Your task to perform on an android device: turn pop-ups on in chrome Image 0: 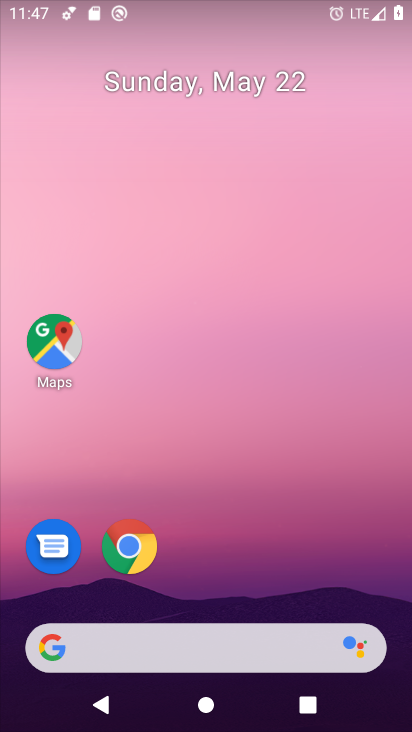
Step 0: drag from (235, 628) to (231, 271)
Your task to perform on an android device: turn pop-ups on in chrome Image 1: 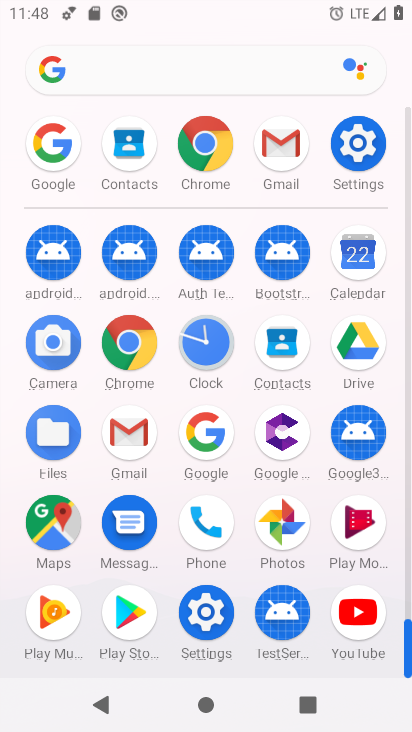
Step 1: click (210, 167)
Your task to perform on an android device: turn pop-ups on in chrome Image 2: 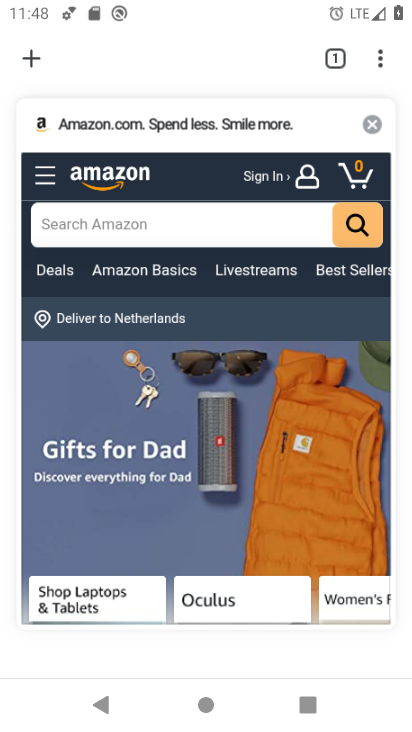
Step 2: click (285, 285)
Your task to perform on an android device: turn pop-ups on in chrome Image 3: 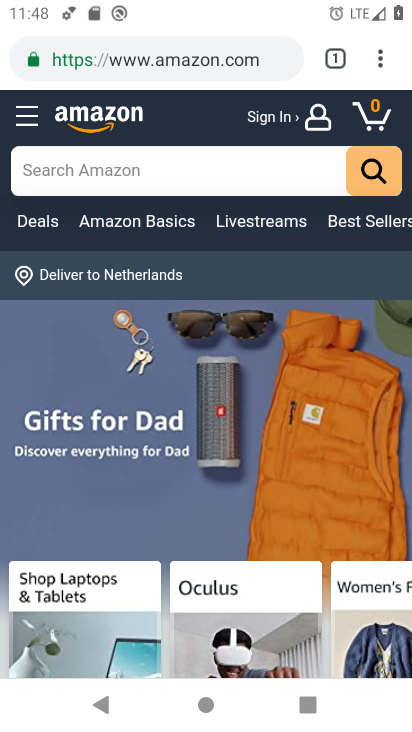
Step 3: click (388, 54)
Your task to perform on an android device: turn pop-ups on in chrome Image 4: 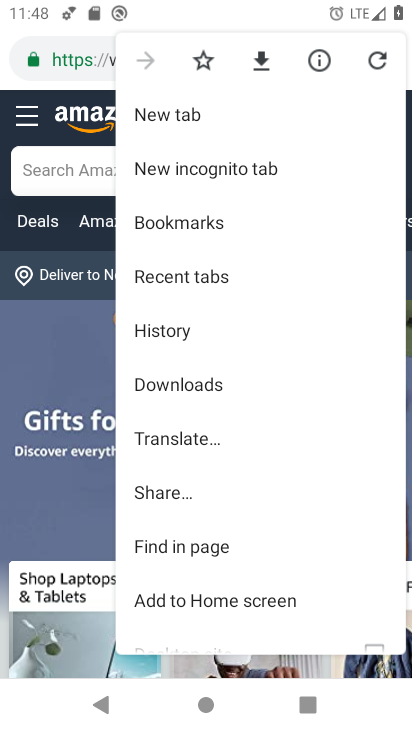
Step 4: drag from (245, 483) to (259, 19)
Your task to perform on an android device: turn pop-ups on in chrome Image 5: 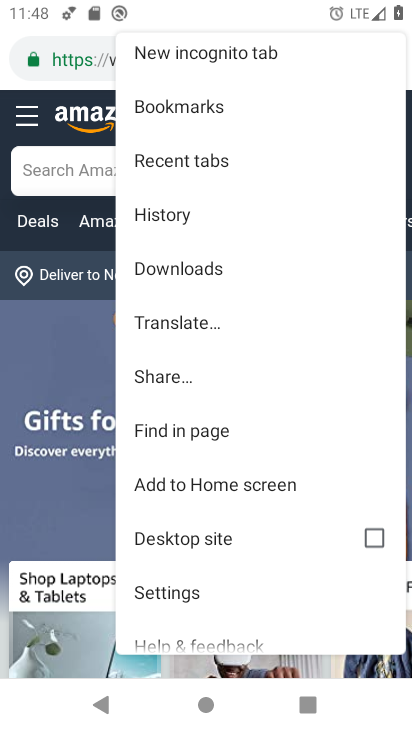
Step 5: click (206, 601)
Your task to perform on an android device: turn pop-ups on in chrome Image 6: 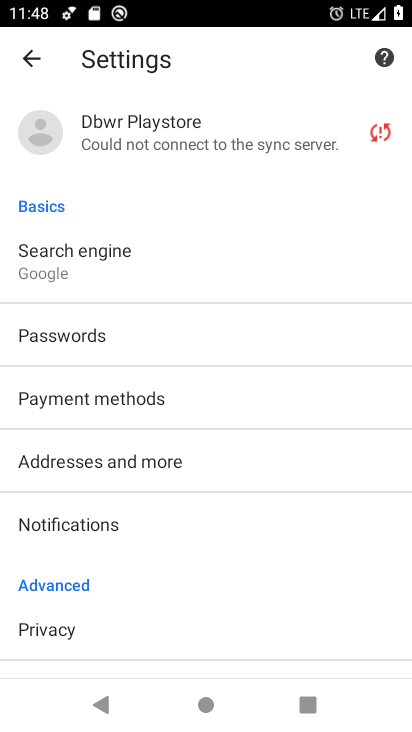
Step 6: drag from (214, 616) to (245, 432)
Your task to perform on an android device: turn pop-ups on in chrome Image 7: 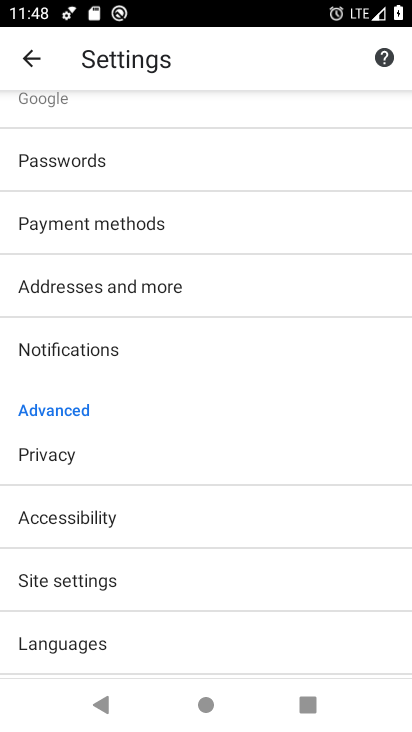
Step 7: click (239, 591)
Your task to perform on an android device: turn pop-ups on in chrome Image 8: 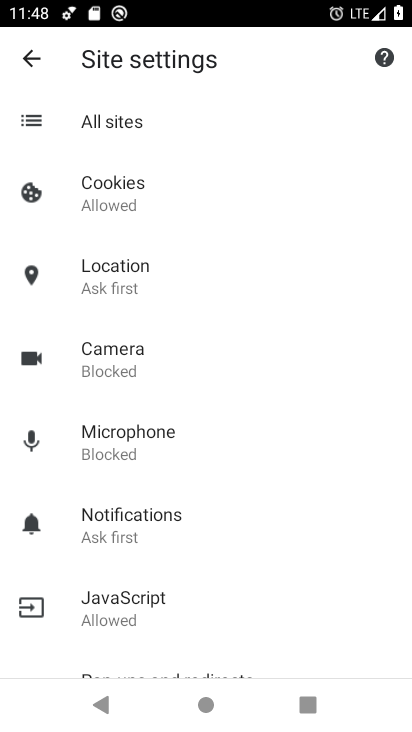
Step 8: drag from (246, 498) to (274, 184)
Your task to perform on an android device: turn pop-ups on in chrome Image 9: 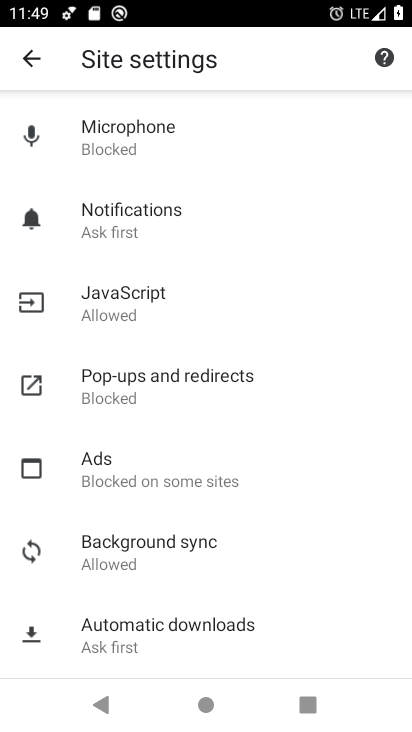
Step 9: drag from (215, 472) to (215, 117)
Your task to perform on an android device: turn pop-ups on in chrome Image 10: 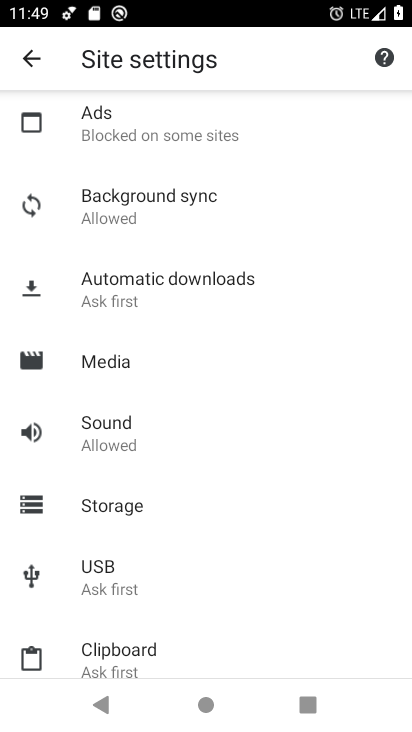
Step 10: drag from (212, 442) to (211, 205)
Your task to perform on an android device: turn pop-ups on in chrome Image 11: 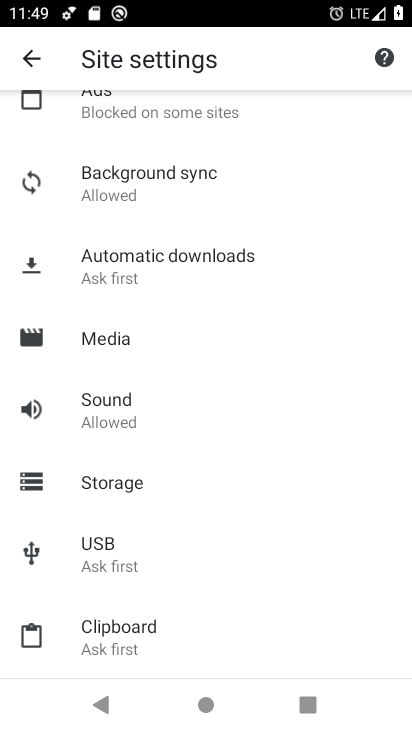
Step 11: drag from (224, 435) to (224, 232)
Your task to perform on an android device: turn pop-ups on in chrome Image 12: 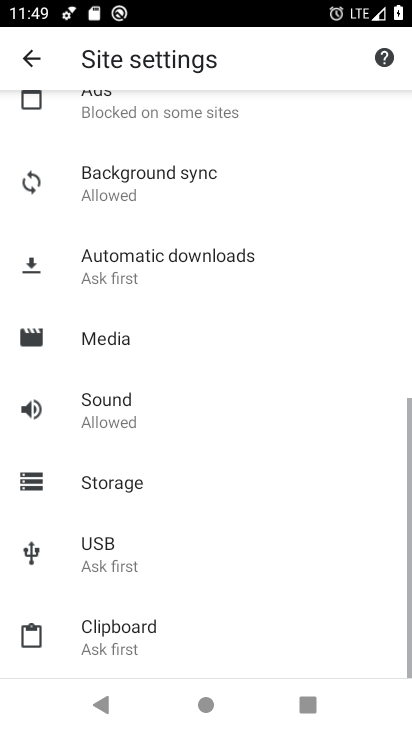
Step 12: drag from (224, 232) to (249, 461)
Your task to perform on an android device: turn pop-ups on in chrome Image 13: 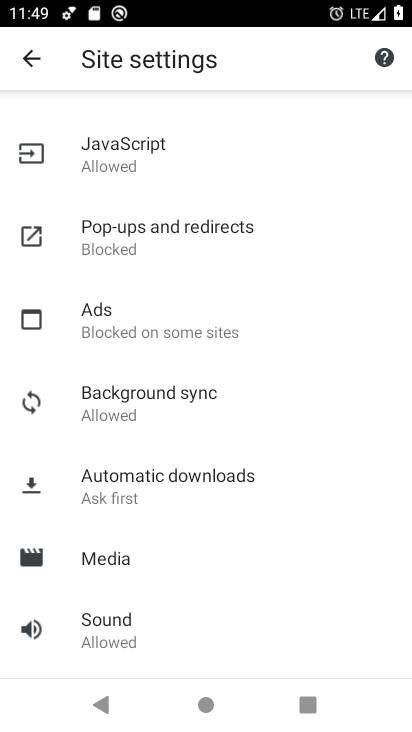
Step 13: click (198, 203)
Your task to perform on an android device: turn pop-ups on in chrome Image 14: 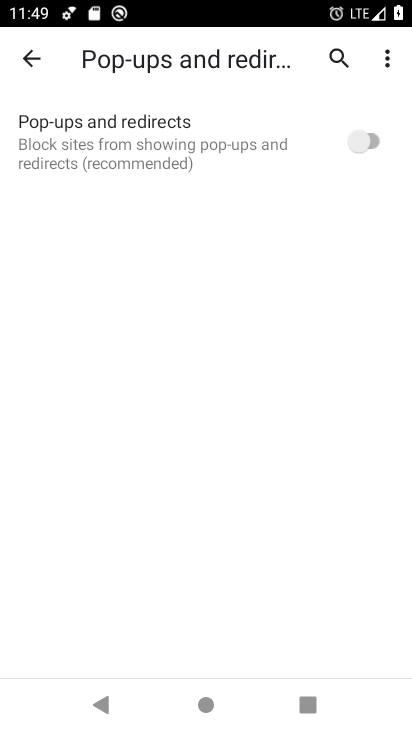
Step 14: click (367, 160)
Your task to perform on an android device: turn pop-ups on in chrome Image 15: 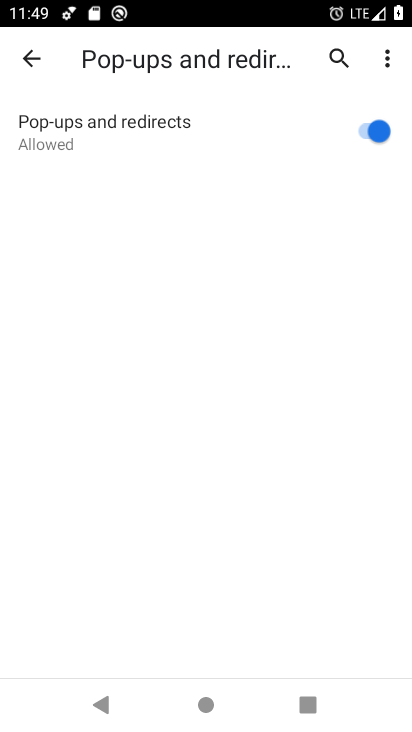
Step 15: task complete